Your task to perform on an android device: open app "Instagram" (install if not already installed) Image 0: 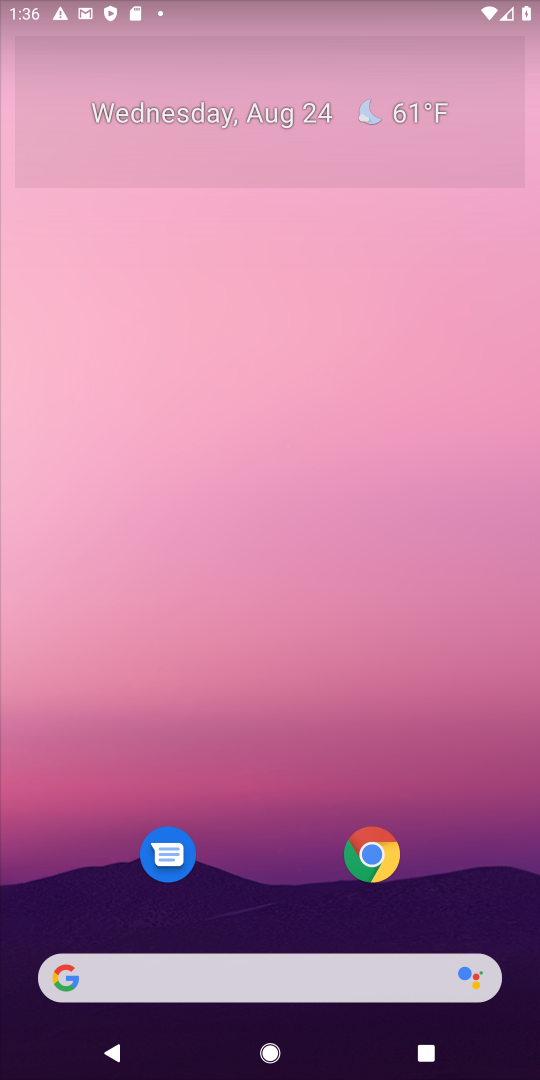
Step 0: press home button
Your task to perform on an android device: open app "Instagram" (install if not already installed) Image 1: 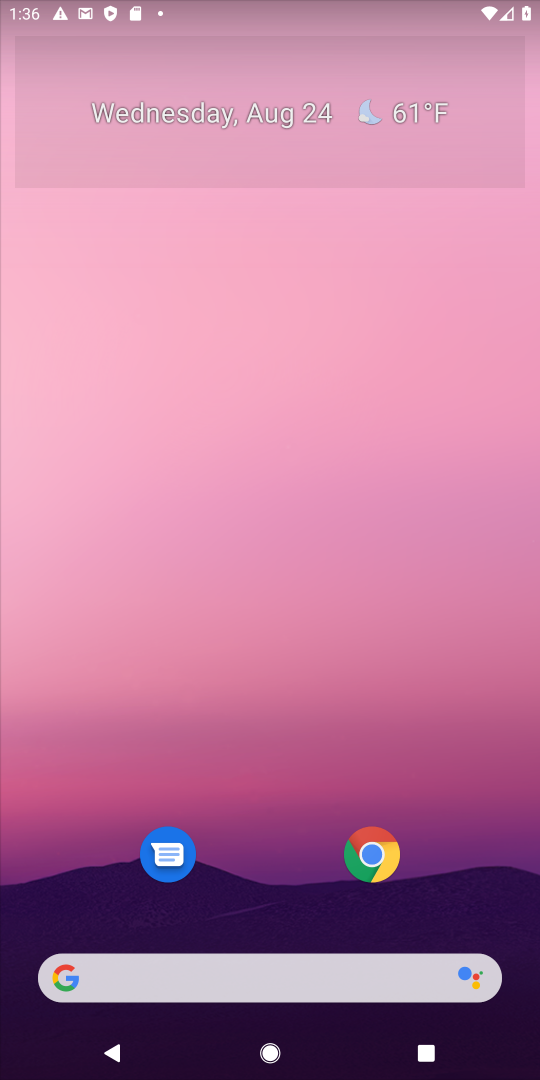
Step 1: drag from (487, 931) to (479, 177)
Your task to perform on an android device: open app "Instagram" (install if not already installed) Image 2: 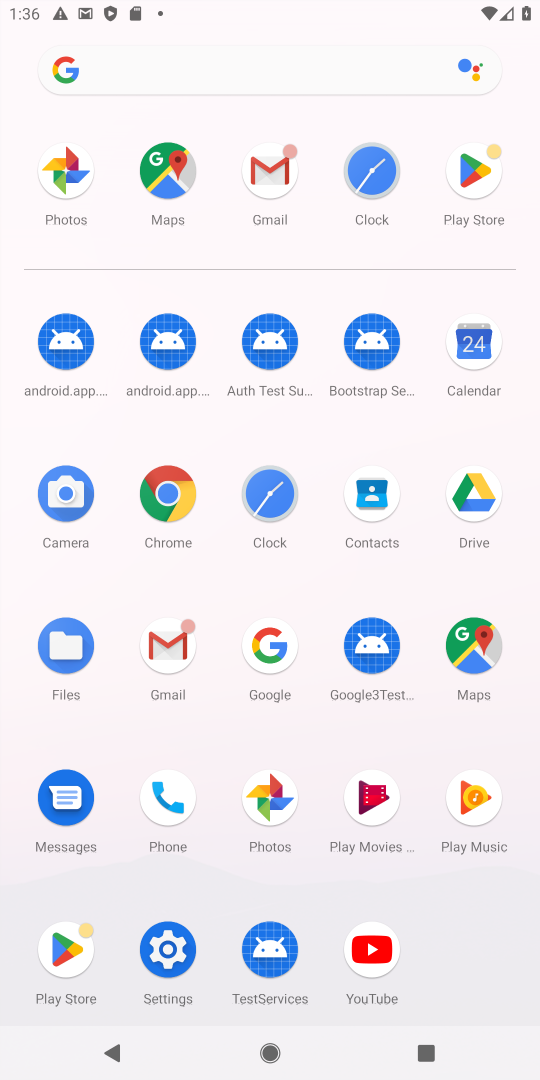
Step 2: click (476, 169)
Your task to perform on an android device: open app "Instagram" (install if not already installed) Image 3: 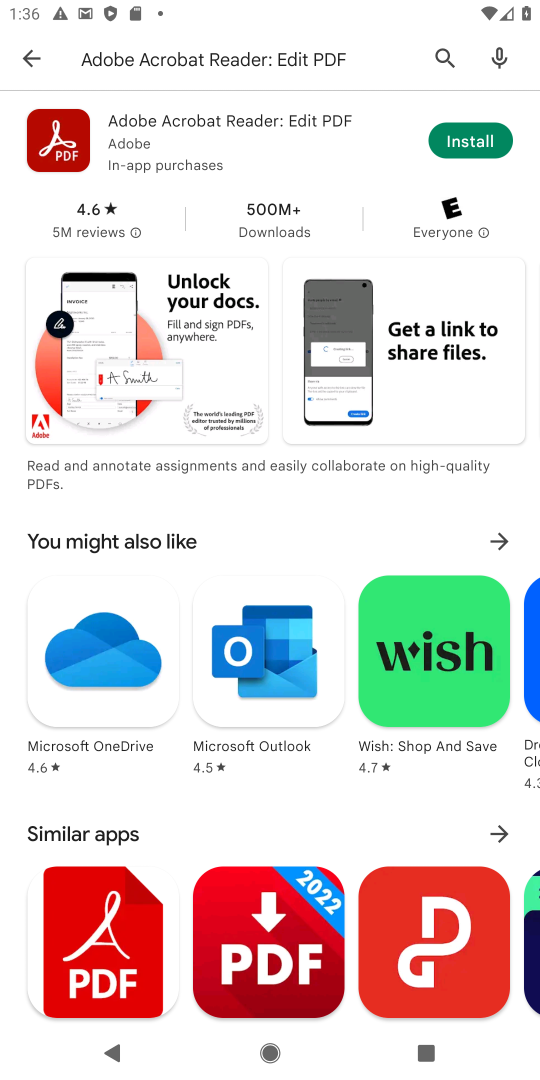
Step 3: press back button
Your task to perform on an android device: open app "Instagram" (install if not already installed) Image 4: 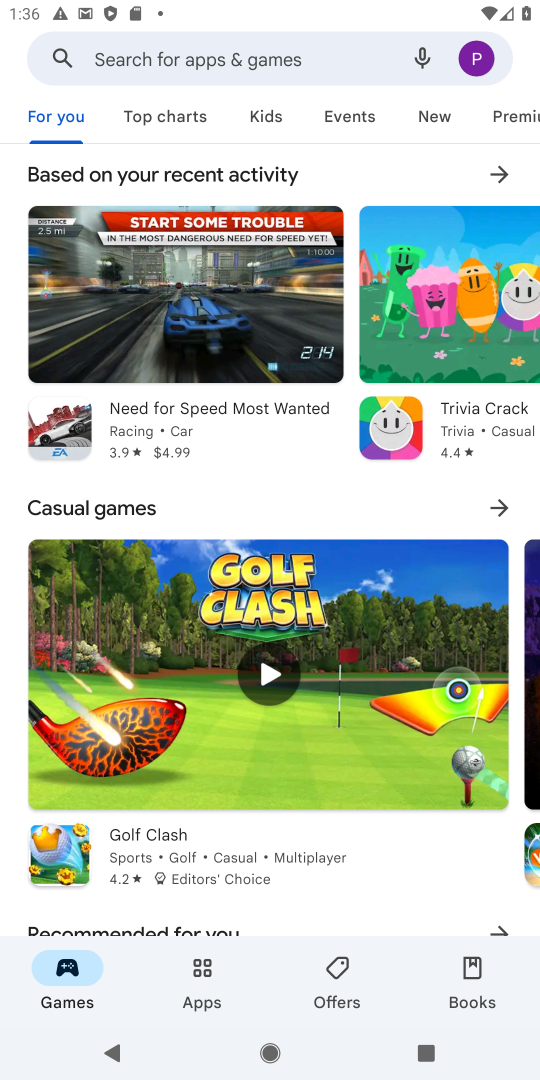
Step 4: click (259, 52)
Your task to perform on an android device: open app "Instagram" (install if not already installed) Image 5: 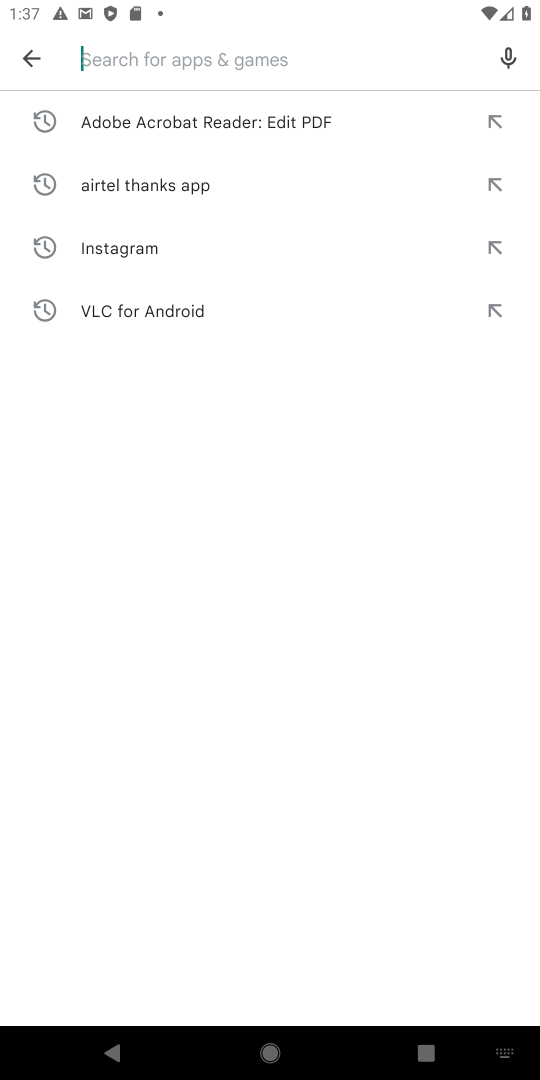
Step 5: type "Instagram"
Your task to perform on an android device: open app "Instagram" (install if not already installed) Image 6: 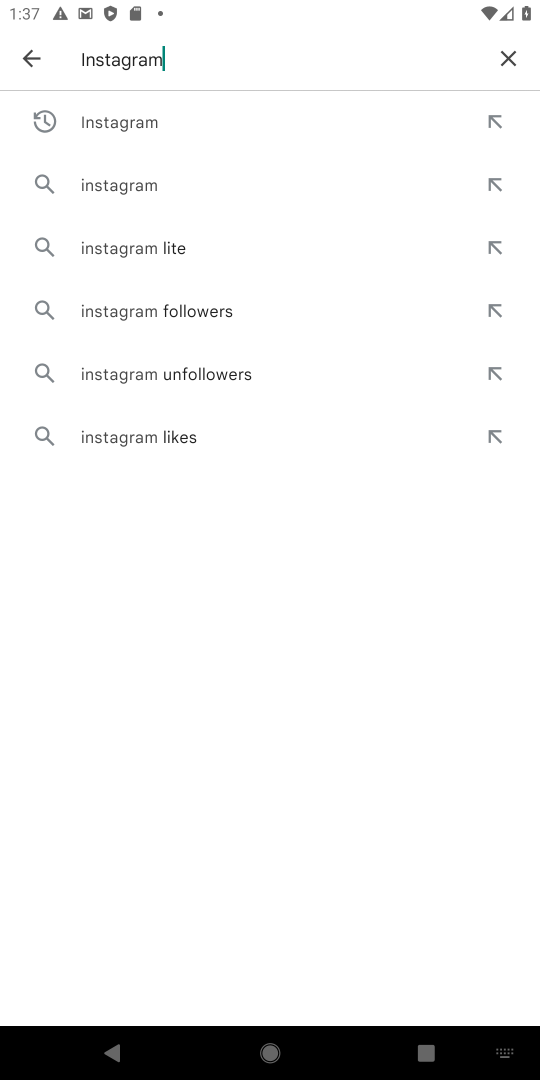
Step 6: press enter
Your task to perform on an android device: open app "Instagram" (install if not already installed) Image 7: 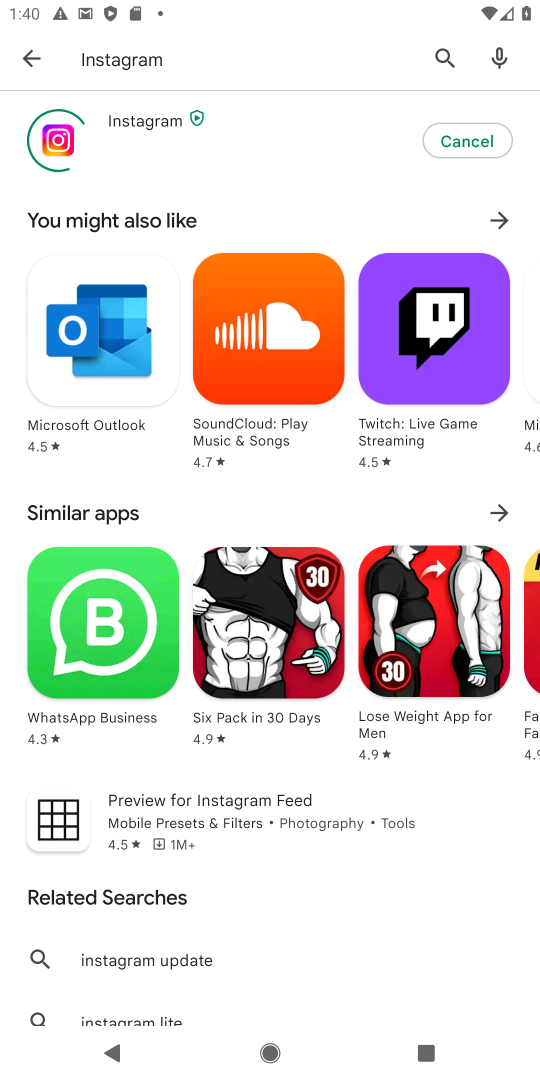
Step 7: task complete